Your task to perform on an android device: Go to location settings Image 0: 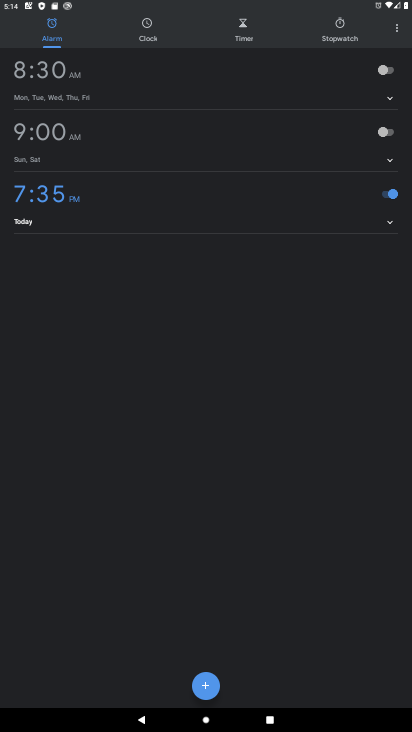
Step 0: press home button
Your task to perform on an android device: Go to location settings Image 1: 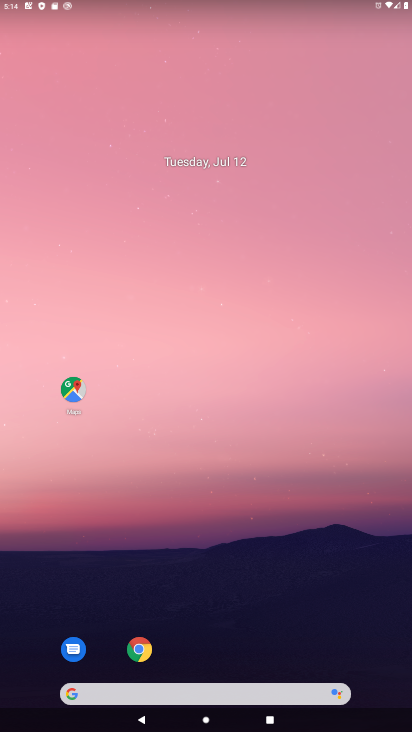
Step 1: drag from (177, 694) to (282, 78)
Your task to perform on an android device: Go to location settings Image 2: 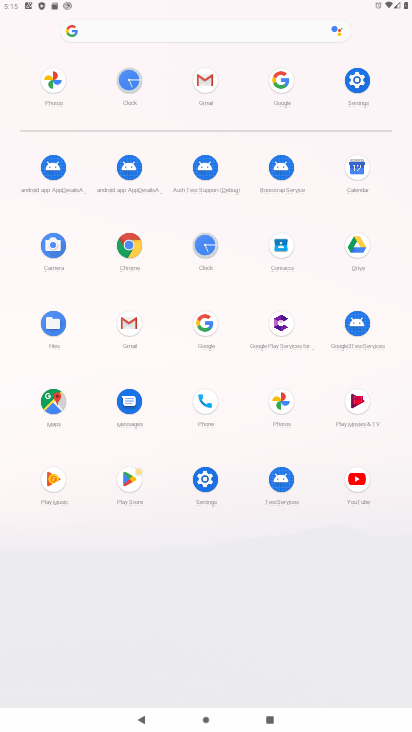
Step 2: click (357, 80)
Your task to perform on an android device: Go to location settings Image 3: 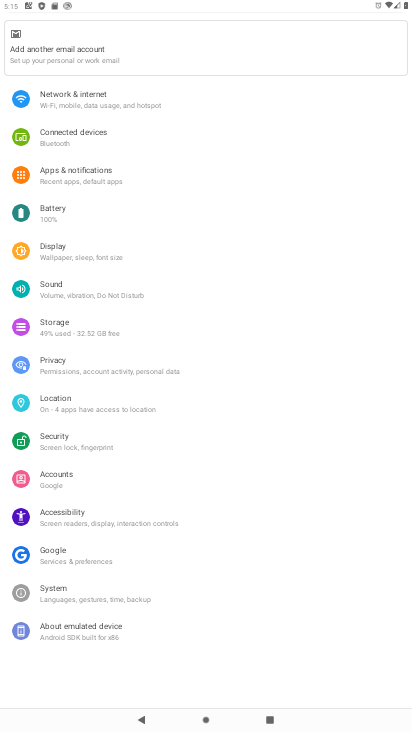
Step 3: click (63, 408)
Your task to perform on an android device: Go to location settings Image 4: 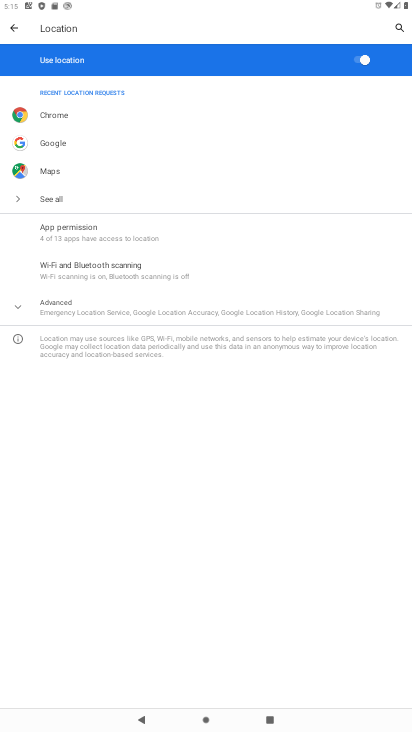
Step 4: task complete